Your task to perform on an android device: star an email in the gmail app Image 0: 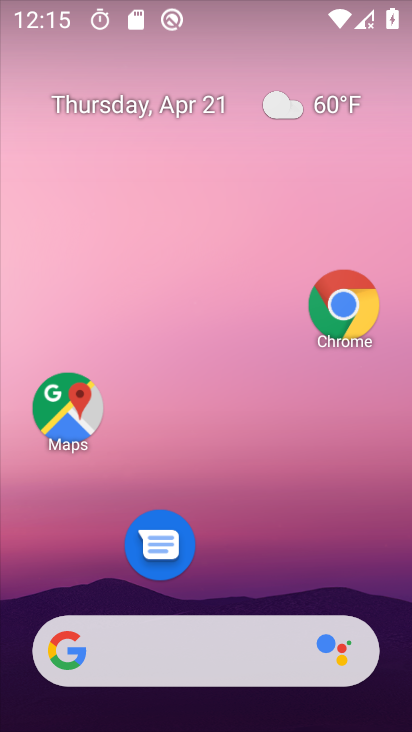
Step 0: drag from (279, 631) to (280, 106)
Your task to perform on an android device: star an email in the gmail app Image 1: 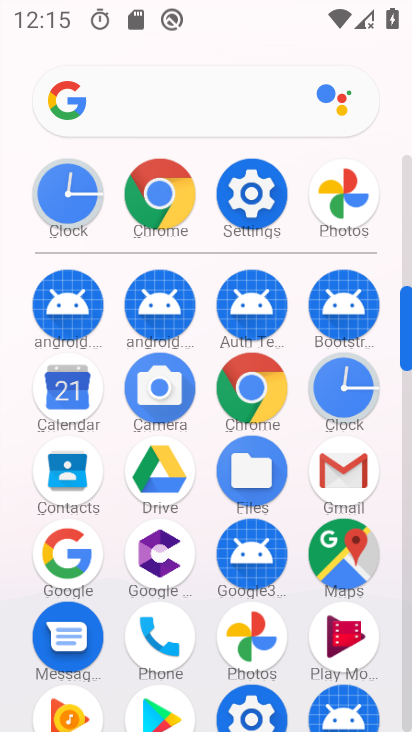
Step 1: click (355, 480)
Your task to perform on an android device: star an email in the gmail app Image 2: 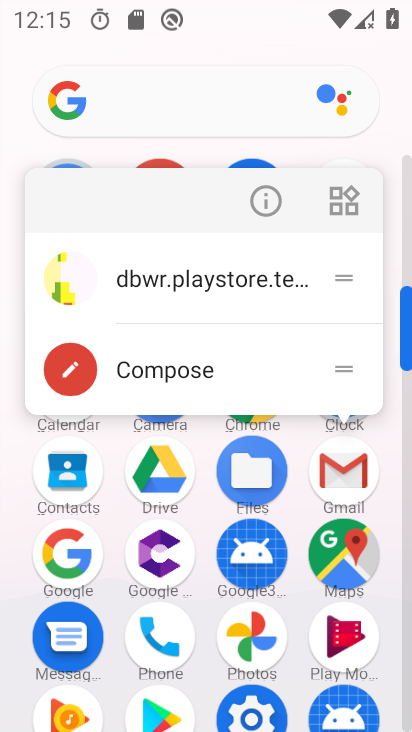
Step 2: click (349, 486)
Your task to perform on an android device: star an email in the gmail app Image 3: 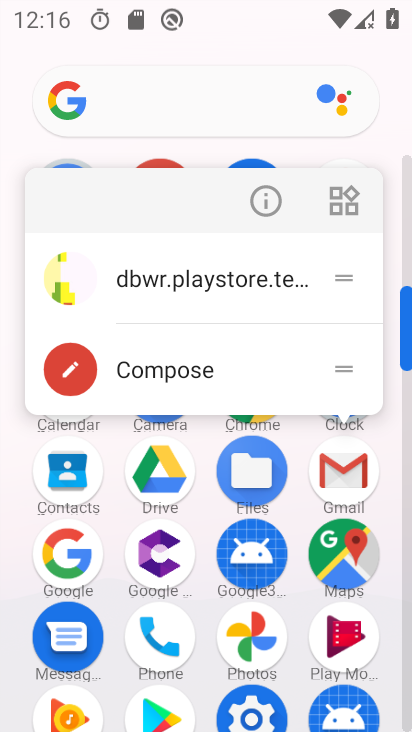
Step 3: click (337, 474)
Your task to perform on an android device: star an email in the gmail app Image 4: 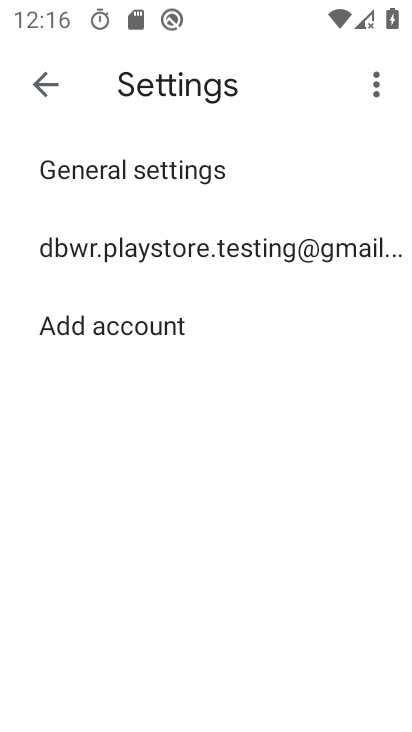
Step 4: click (38, 88)
Your task to perform on an android device: star an email in the gmail app Image 5: 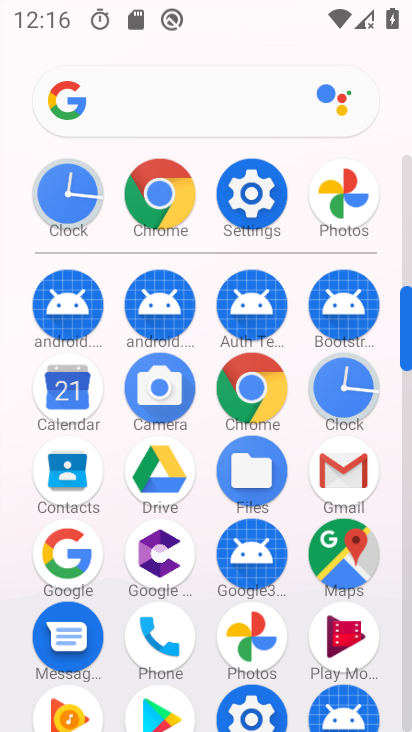
Step 5: click (354, 479)
Your task to perform on an android device: star an email in the gmail app Image 6: 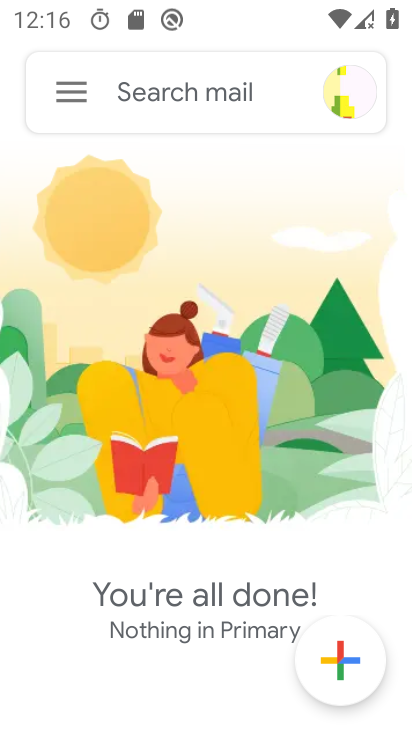
Step 6: click (64, 96)
Your task to perform on an android device: star an email in the gmail app Image 7: 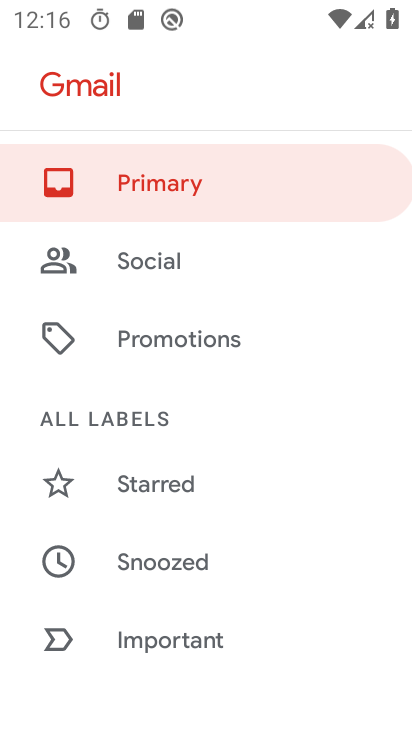
Step 7: drag from (225, 531) to (305, 134)
Your task to perform on an android device: star an email in the gmail app Image 8: 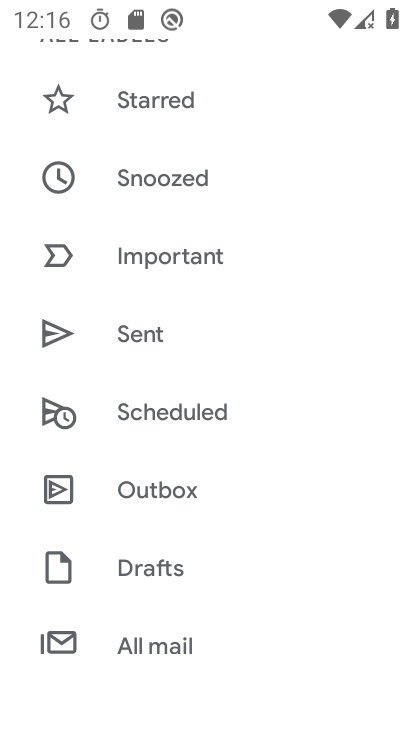
Step 8: drag from (221, 504) to (281, 112)
Your task to perform on an android device: star an email in the gmail app Image 9: 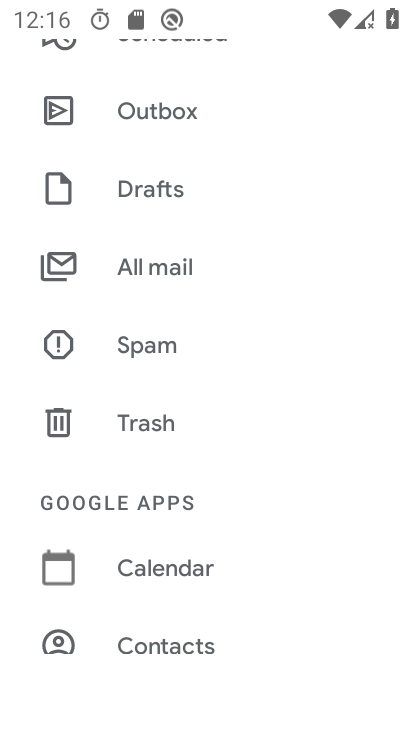
Step 9: drag from (190, 497) to (275, 78)
Your task to perform on an android device: star an email in the gmail app Image 10: 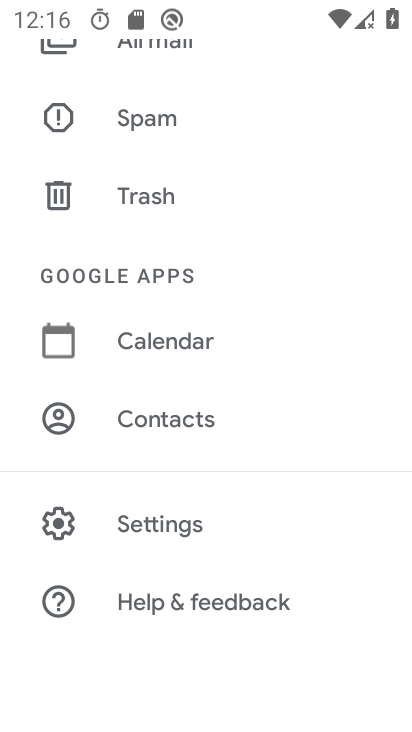
Step 10: drag from (215, 234) to (212, 489)
Your task to perform on an android device: star an email in the gmail app Image 11: 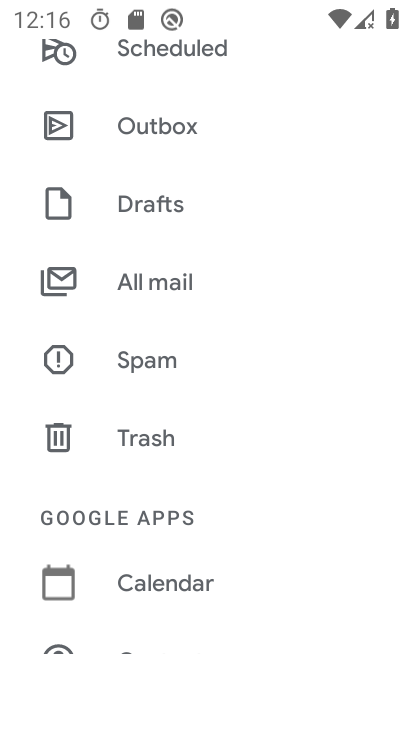
Step 11: click (226, 273)
Your task to perform on an android device: star an email in the gmail app Image 12: 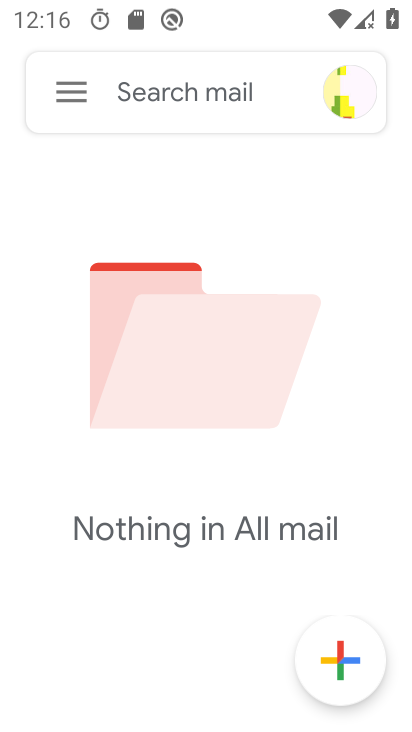
Step 12: task complete